Your task to perform on an android device: Go to display settings Image 0: 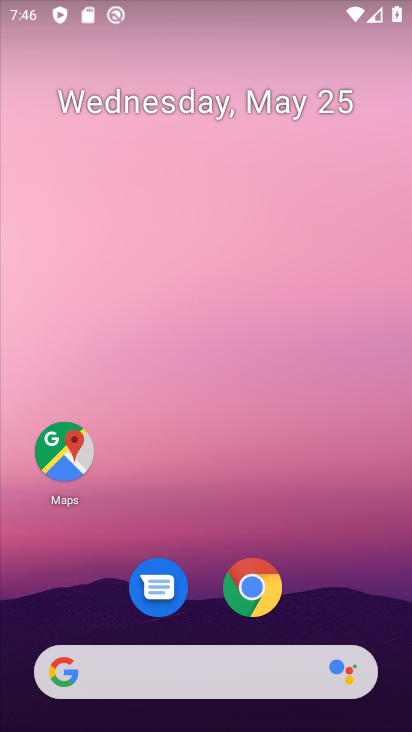
Step 0: drag from (334, 595) to (371, 80)
Your task to perform on an android device: Go to display settings Image 1: 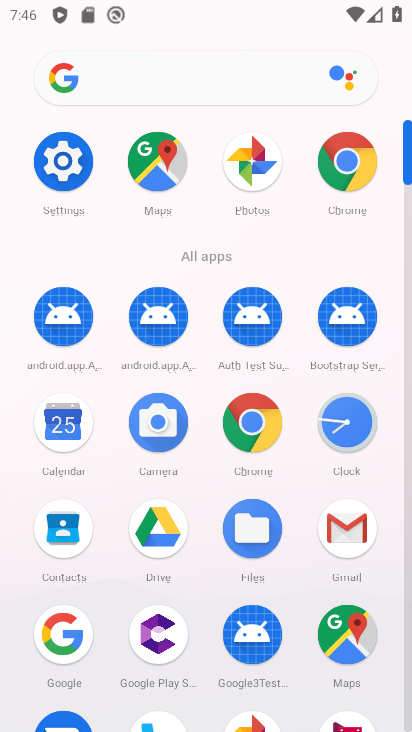
Step 1: drag from (107, 296) to (126, 163)
Your task to perform on an android device: Go to display settings Image 2: 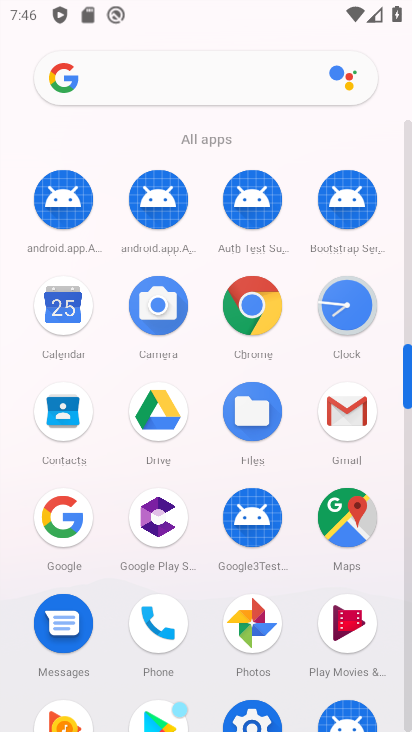
Step 2: click (254, 714)
Your task to perform on an android device: Go to display settings Image 3: 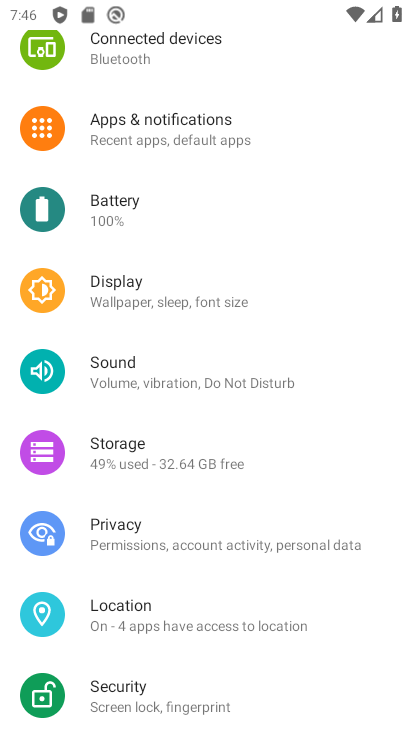
Step 3: click (124, 284)
Your task to perform on an android device: Go to display settings Image 4: 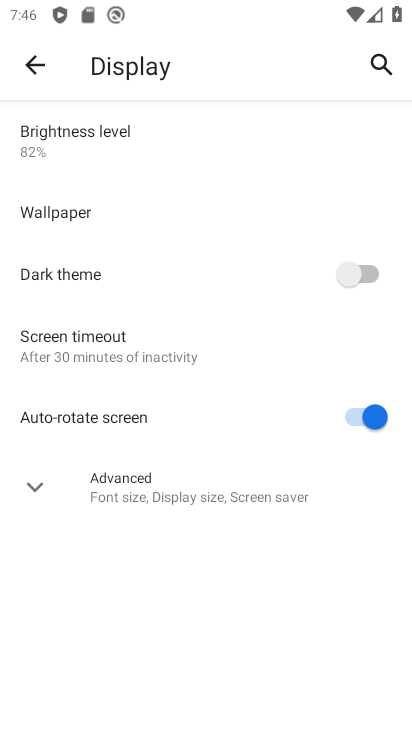
Step 4: task complete